Your task to perform on an android device: Open calendar and show me the second week of next month Image 0: 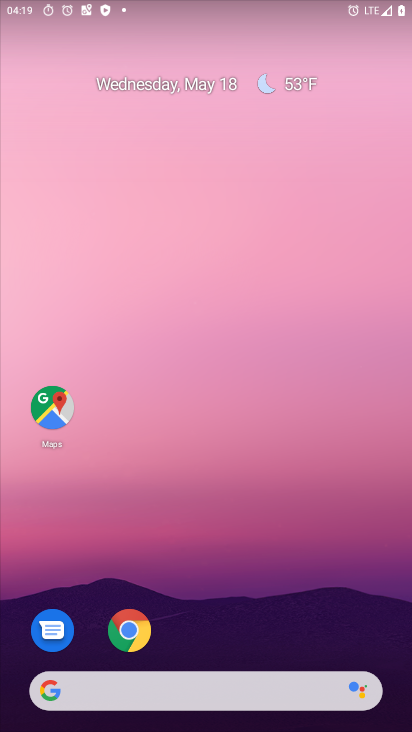
Step 0: drag from (162, 723) to (188, 206)
Your task to perform on an android device: Open calendar and show me the second week of next month Image 1: 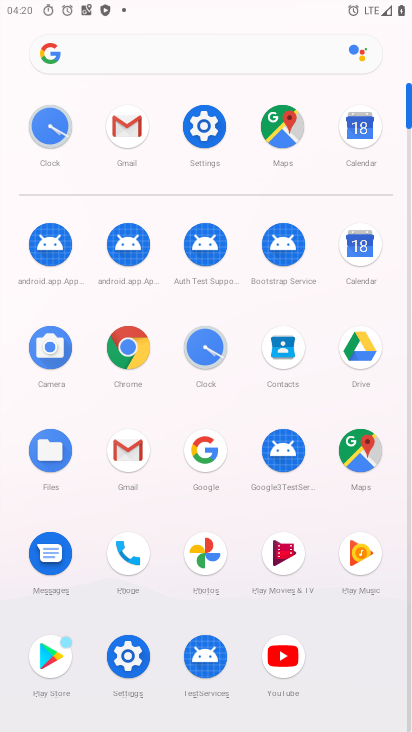
Step 1: click (359, 247)
Your task to perform on an android device: Open calendar and show me the second week of next month Image 2: 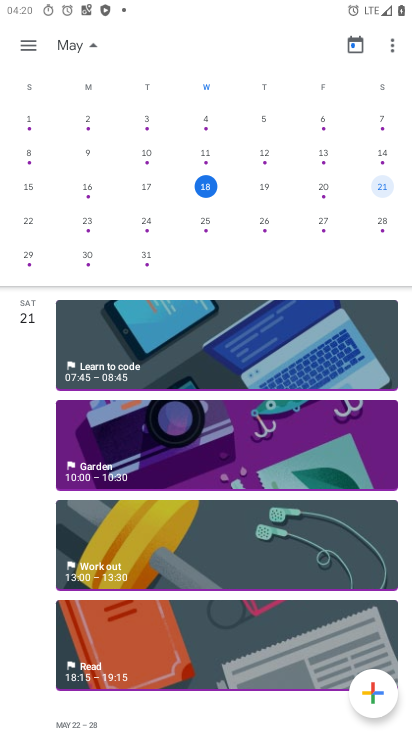
Step 2: drag from (352, 157) to (4, 164)
Your task to perform on an android device: Open calendar and show me the second week of next month Image 3: 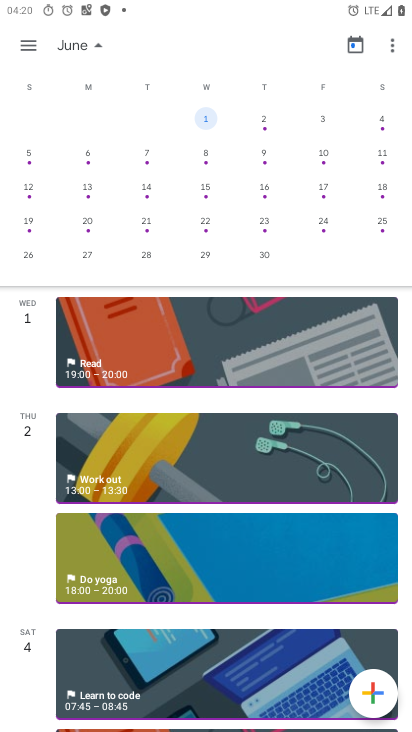
Step 3: click (88, 182)
Your task to perform on an android device: Open calendar and show me the second week of next month Image 4: 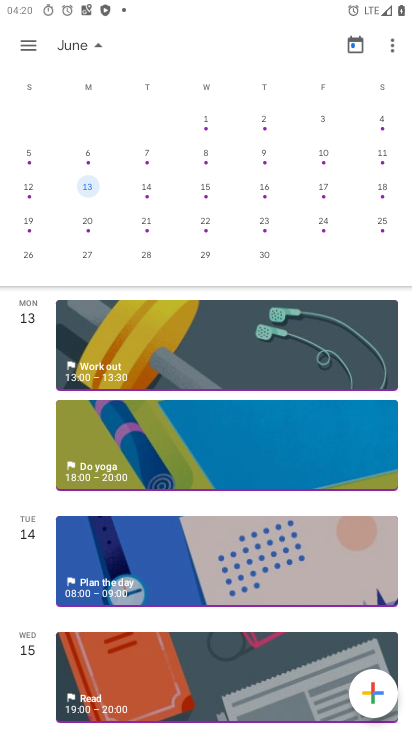
Step 4: click (27, 42)
Your task to perform on an android device: Open calendar and show me the second week of next month Image 5: 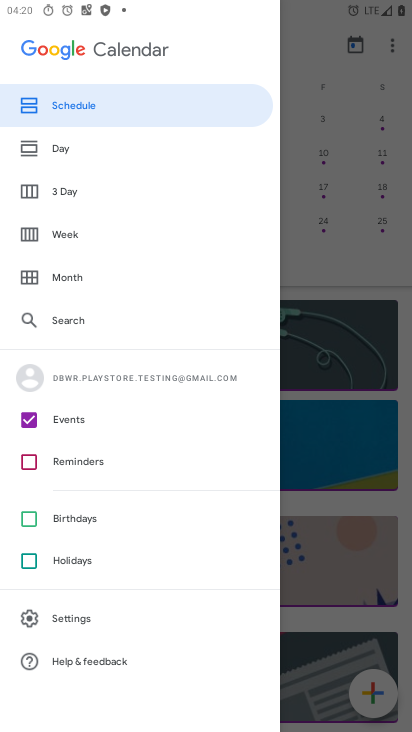
Step 5: click (61, 232)
Your task to perform on an android device: Open calendar and show me the second week of next month Image 6: 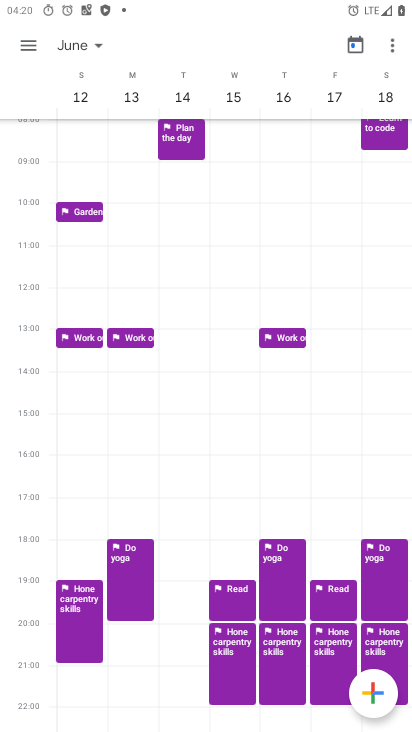
Step 6: task complete